Your task to perform on an android device: Go to Amazon Image 0: 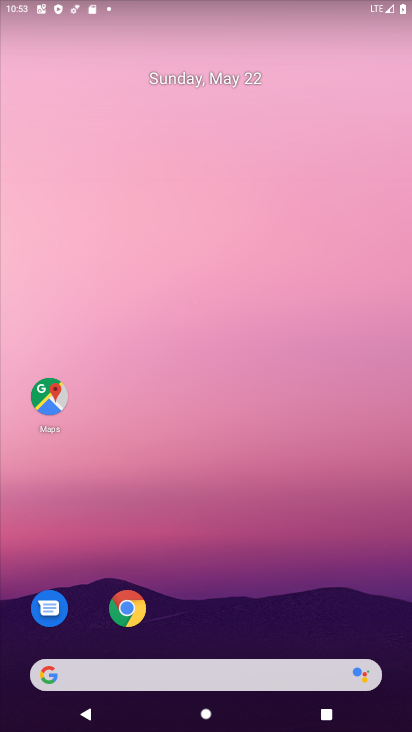
Step 0: click (127, 610)
Your task to perform on an android device: Go to Amazon Image 1: 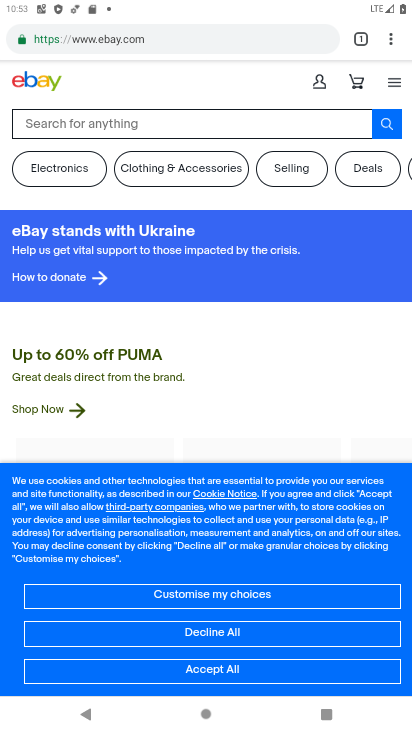
Step 1: click (392, 42)
Your task to perform on an android device: Go to Amazon Image 2: 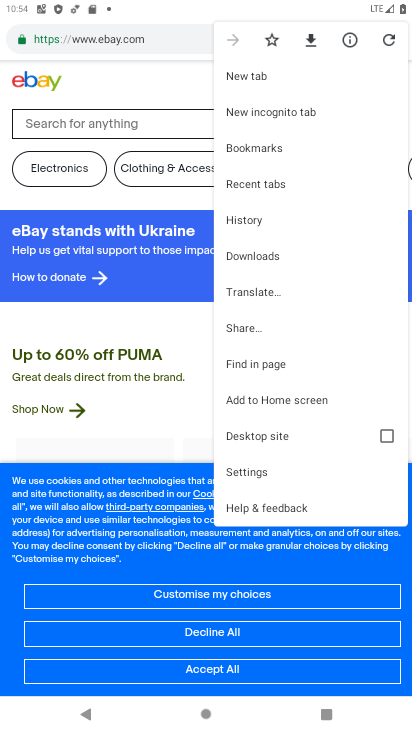
Step 2: click (255, 72)
Your task to perform on an android device: Go to Amazon Image 3: 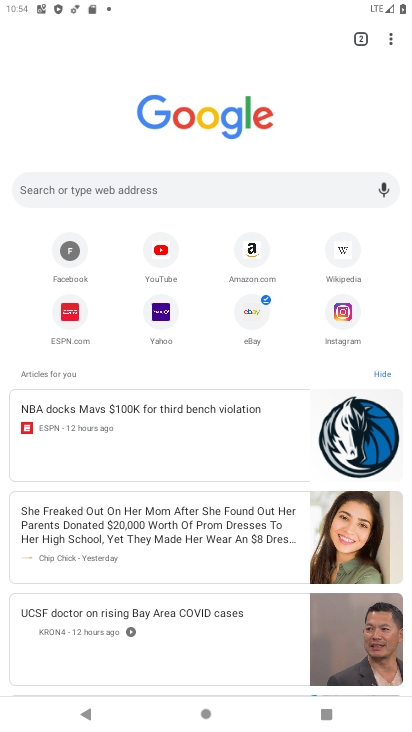
Step 3: click (252, 252)
Your task to perform on an android device: Go to Amazon Image 4: 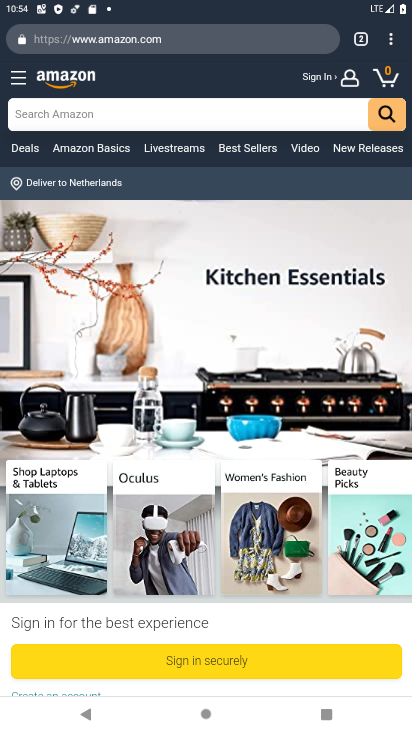
Step 4: task complete